Your task to perform on an android device: Show me popular games on the Play Store Image 0: 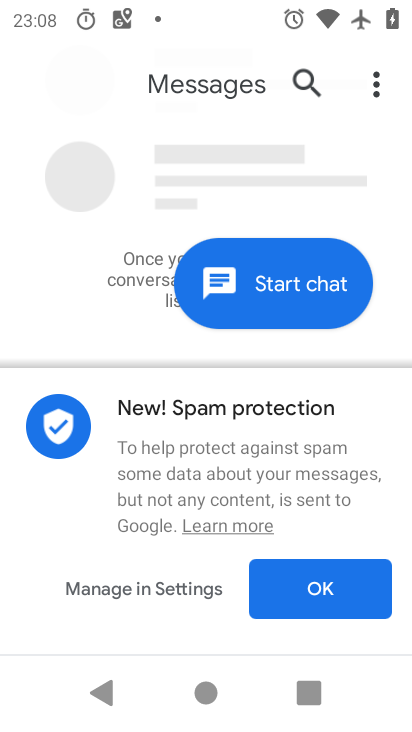
Step 0: drag from (245, 496) to (282, 279)
Your task to perform on an android device: Show me popular games on the Play Store Image 1: 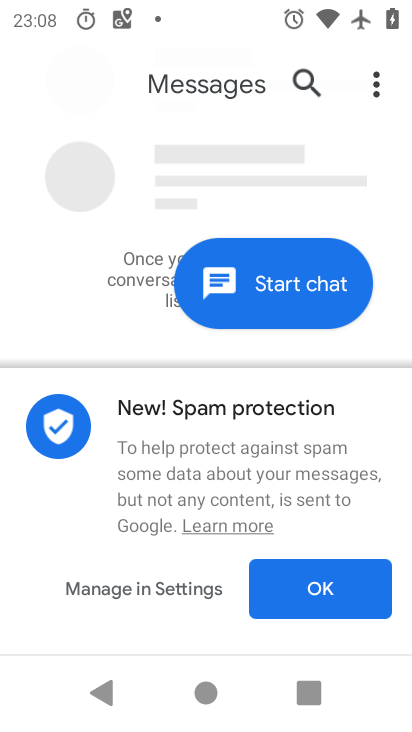
Step 1: drag from (179, 519) to (245, 262)
Your task to perform on an android device: Show me popular games on the Play Store Image 2: 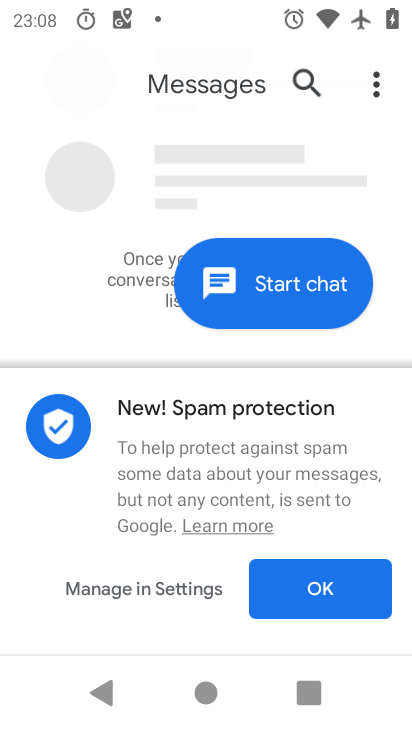
Step 2: press home button
Your task to perform on an android device: Show me popular games on the Play Store Image 3: 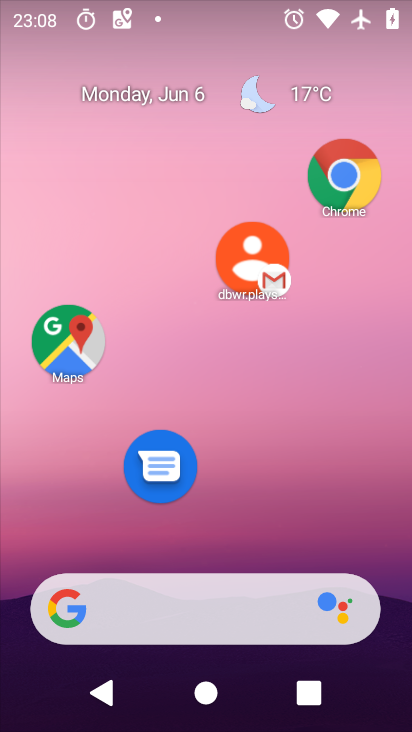
Step 3: drag from (232, 533) to (134, 0)
Your task to perform on an android device: Show me popular games on the Play Store Image 4: 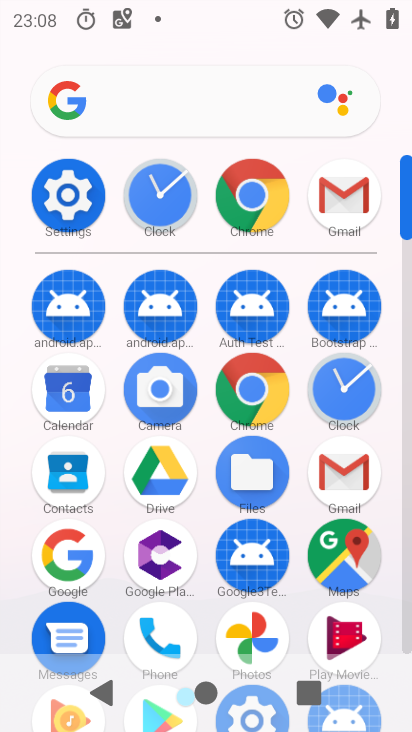
Step 4: drag from (196, 600) to (226, 230)
Your task to perform on an android device: Show me popular games on the Play Store Image 5: 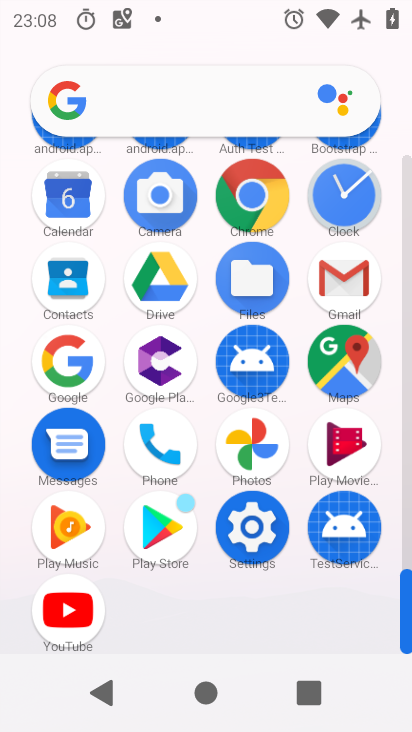
Step 5: click (166, 544)
Your task to perform on an android device: Show me popular games on the Play Store Image 6: 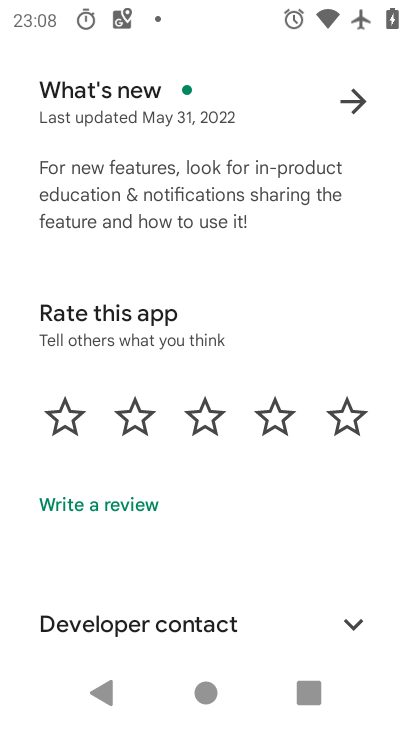
Step 6: drag from (221, 626) to (295, 199)
Your task to perform on an android device: Show me popular games on the Play Store Image 7: 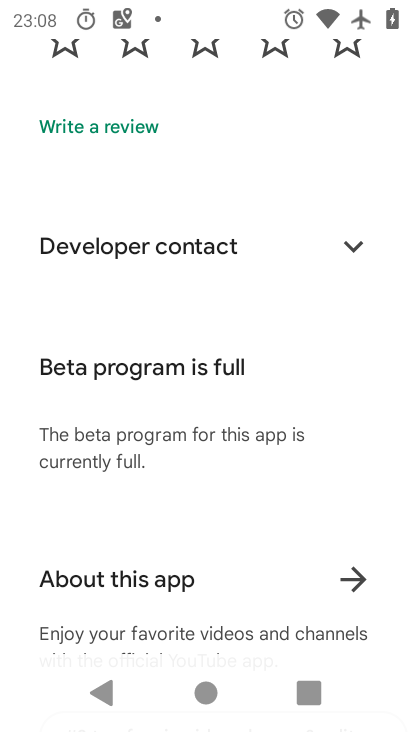
Step 7: drag from (230, 183) to (267, 725)
Your task to perform on an android device: Show me popular games on the Play Store Image 8: 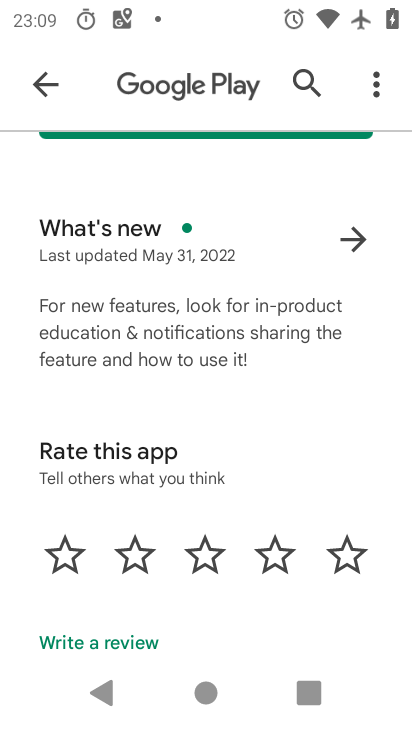
Step 8: drag from (212, 258) to (274, 660)
Your task to perform on an android device: Show me popular games on the Play Store Image 9: 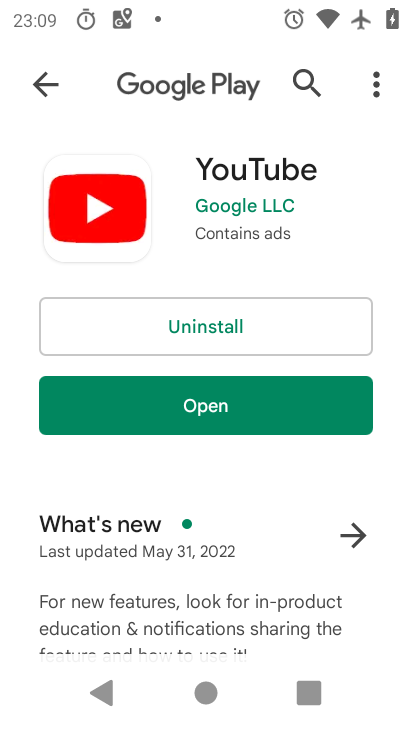
Step 9: drag from (218, 534) to (262, 225)
Your task to perform on an android device: Show me popular games on the Play Store Image 10: 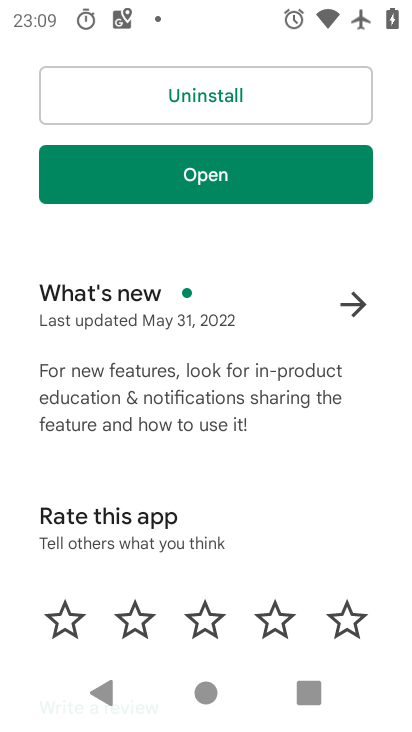
Step 10: drag from (77, 90) to (205, 575)
Your task to perform on an android device: Show me popular games on the Play Store Image 11: 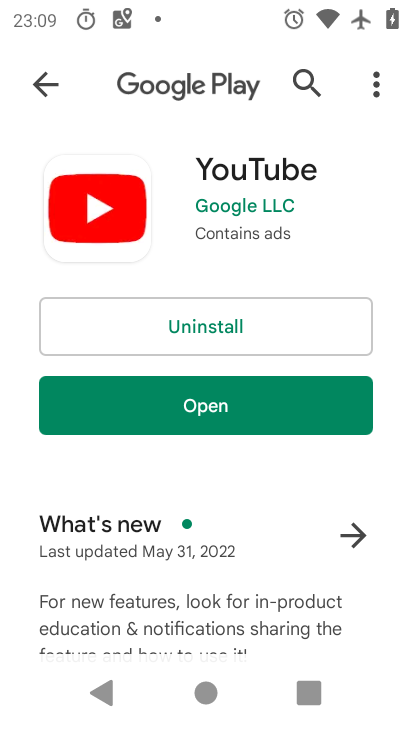
Step 11: click (48, 71)
Your task to perform on an android device: Show me popular games on the Play Store Image 12: 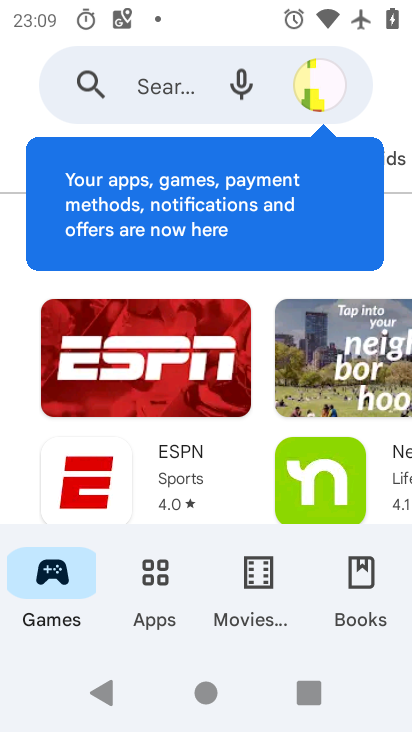
Step 12: drag from (224, 484) to (276, 69)
Your task to perform on an android device: Show me popular games on the Play Store Image 13: 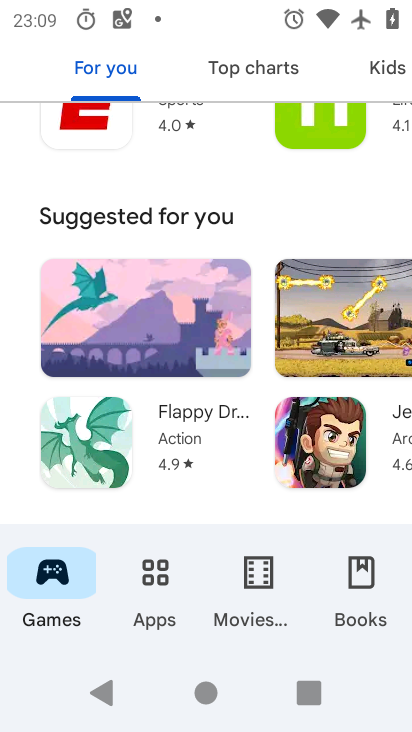
Step 13: drag from (235, 455) to (340, 10)
Your task to perform on an android device: Show me popular games on the Play Store Image 14: 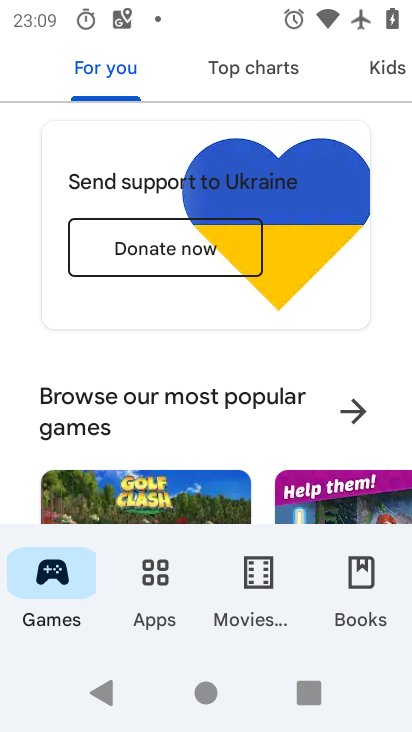
Step 14: drag from (268, 351) to (309, 203)
Your task to perform on an android device: Show me popular games on the Play Store Image 15: 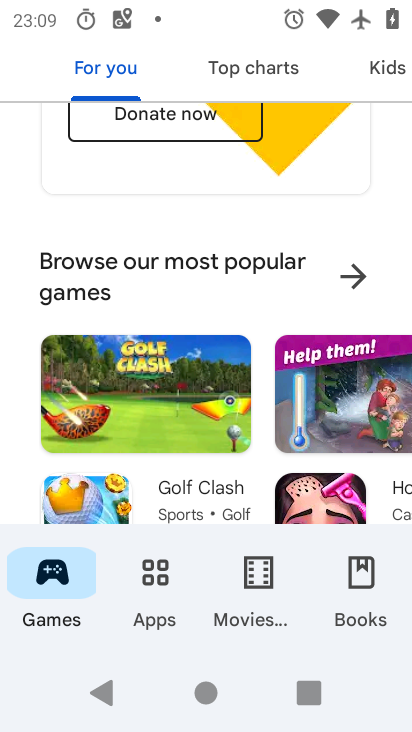
Step 15: click (358, 264)
Your task to perform on an android device: Show me popular games on the Play Store Image 16: 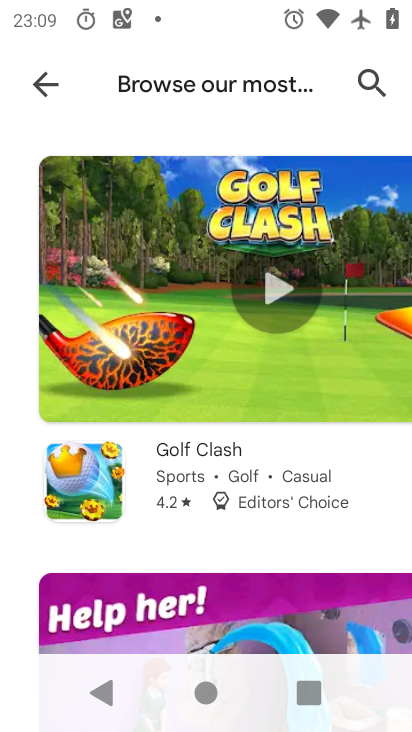
Step 16: task complete